Your task to perform on an android device: Open the stopwatch Image 0: 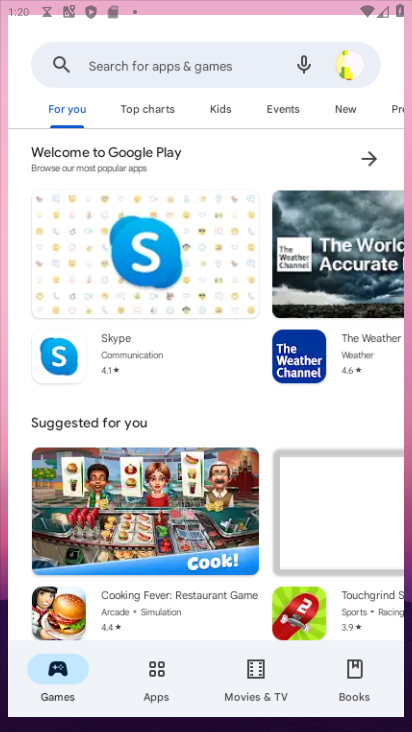
Step 0: press home button
Your task to perform on an android device: Open the stopwatch Image 1: 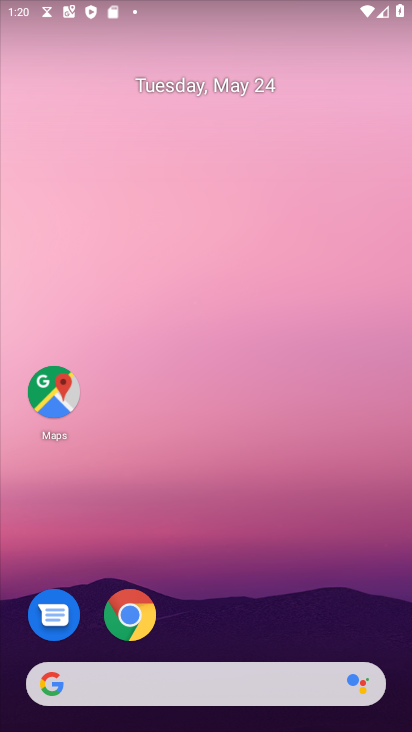
Step 1: drag from (224, 646) to (213, 139)
Your task to perform on an android device: Open the stopwatch Image 2: 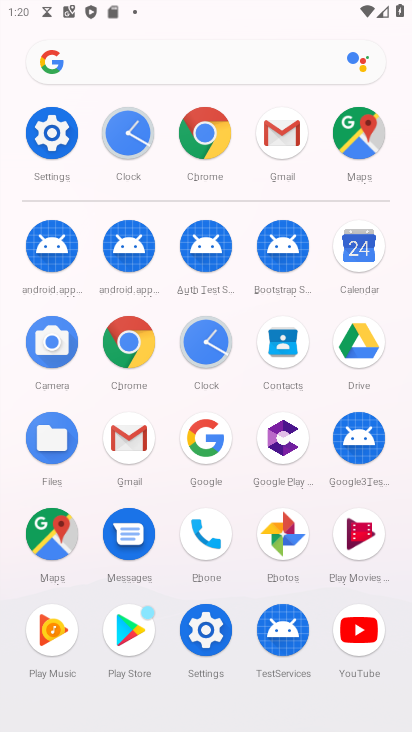
Step 2: click (202, 332)
Your task to perform on an android device: Open the stopwatch Image 3: 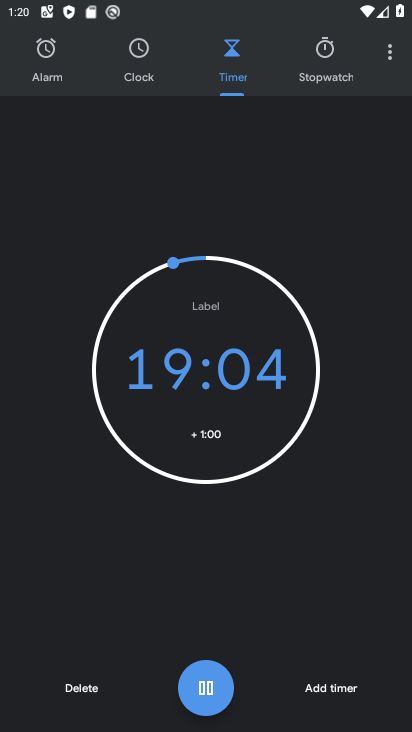
Step 3: click (322, 49)
Your task to perform on an android device: Open the stopwatch Image 4: 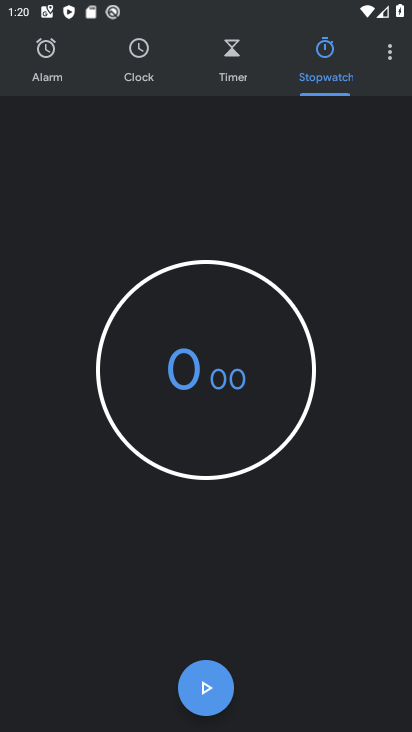
Step 4: click (200, 681)
Your task to perform on an android device: Open the stopwatch Image 5: 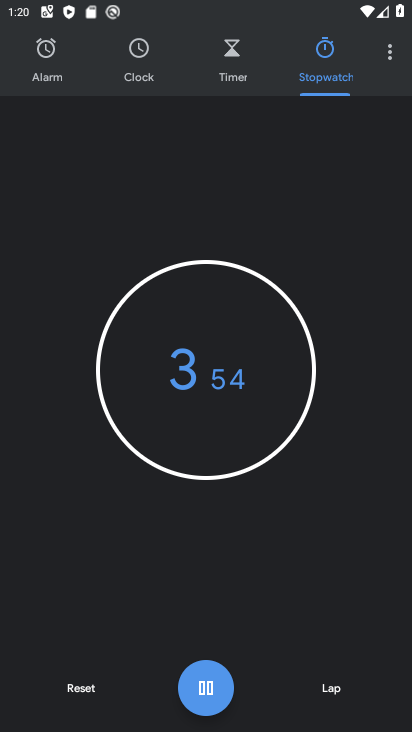
Step 5: task complete